Your task to perform on an android device: What's the weather going to be this weekend? Image 0: 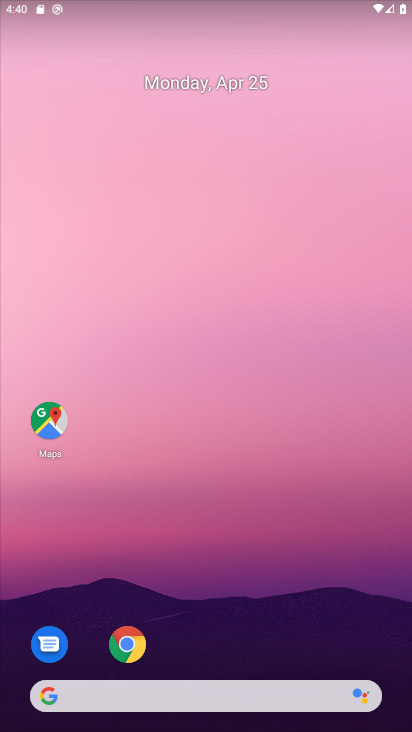
Step 0: drag from (267, 525) to (234, 6)
Your task to perform on an android device: What's the weather going to be this weekend? Image 1: 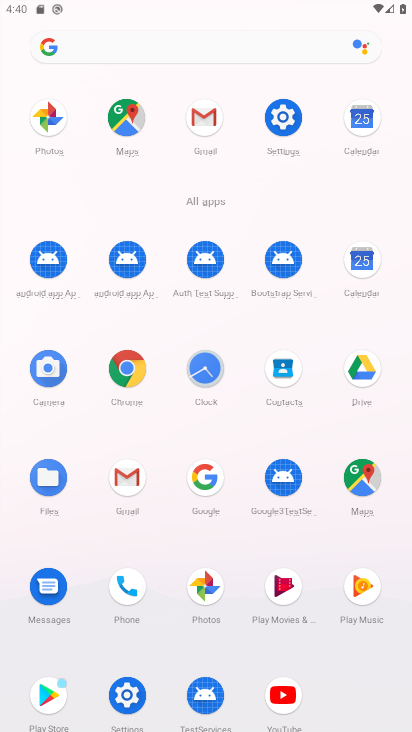
Step 1: click (209, 477)
Your task to perform on an android device: What's the weather going to be this weekend? Image 2: 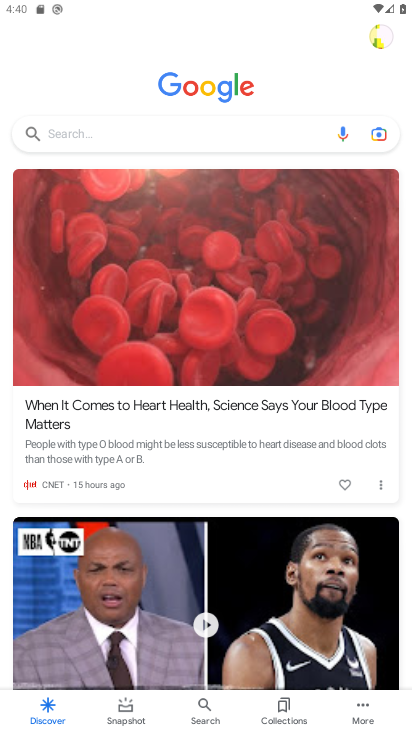
Step 2: click (236, 127)
Your task to perform on an android device: What's the weather going to be this weekend? Image 3: 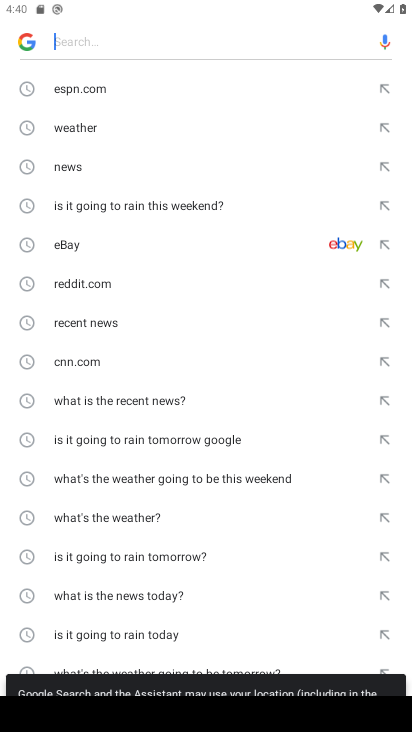
Step 3: click (182, 134)
Your task to perform on an android device: What's the weather going to be this weekend? Image 4: 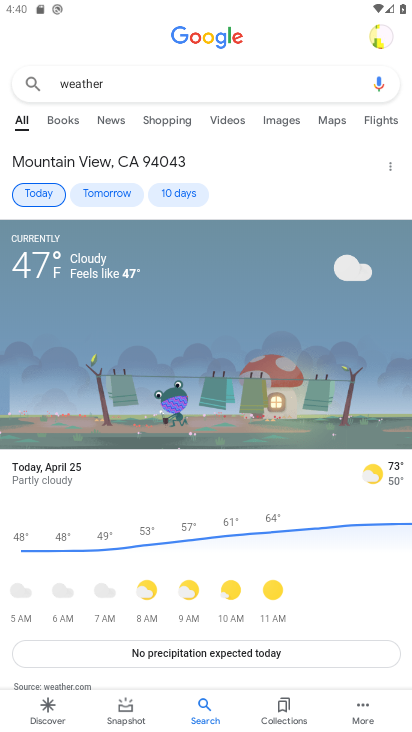
Step 4: click (187, 189)
Your task to perform on an android device: What's the weather going to be this weekend? Image 5: 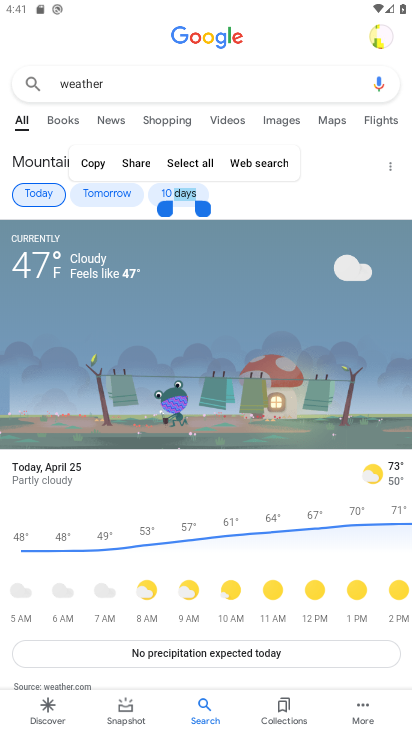
Step 5: click (202, 189)
Your task to perform on an android device: What's the weather going to be this weekend? Image 6: 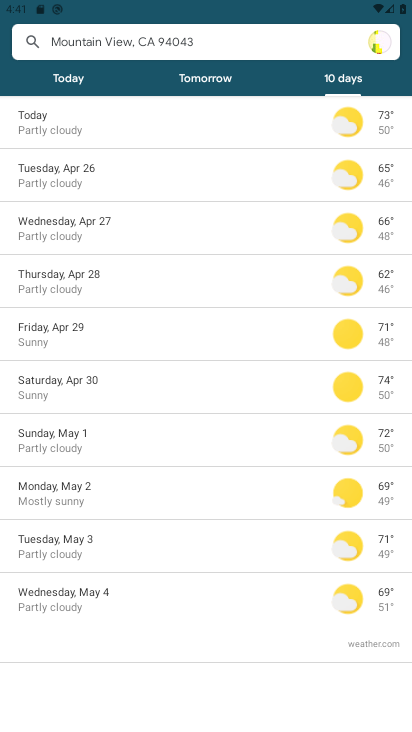
Step 6: task complete